Your task to perform on an android device: check battery use Image 0: 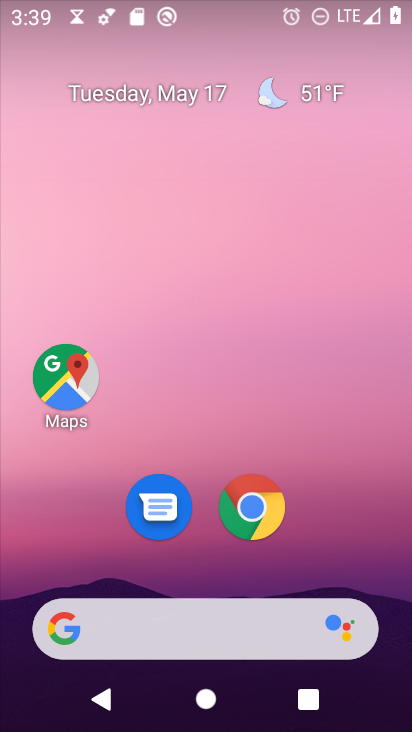
Step 0: drag from (302, 570) to (340, 103)
Your task to perform on an android device: check battery use Image 1: 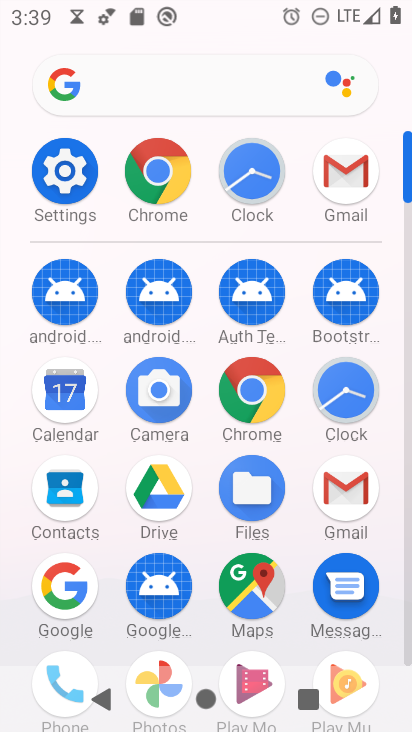
Step 1: click (54, 192)
Your task to perform on an android device: check battery use Image 2: 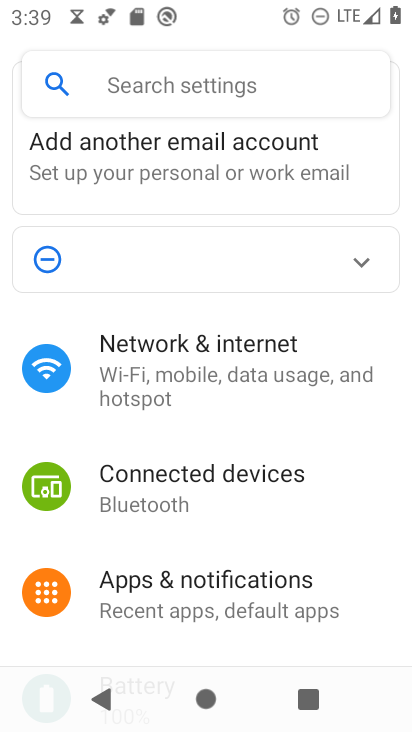
Step 2: drag from (139, 539) to (152, 374)
Your task to perform on an android device: check battery use Image 3: 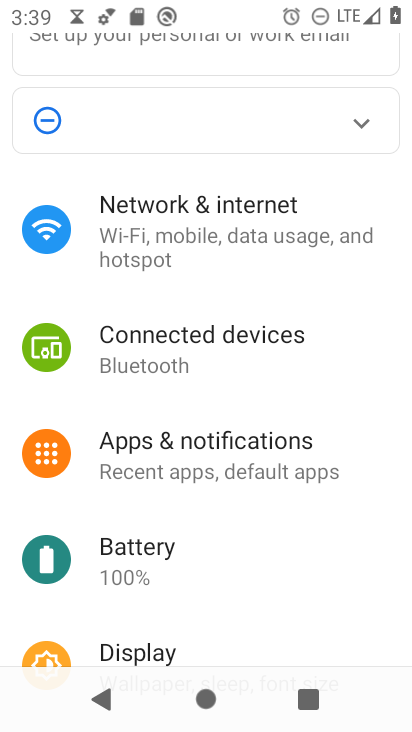
Step 3: click (159, 575)
Your task to perform on an android device: check battery use Image 4: 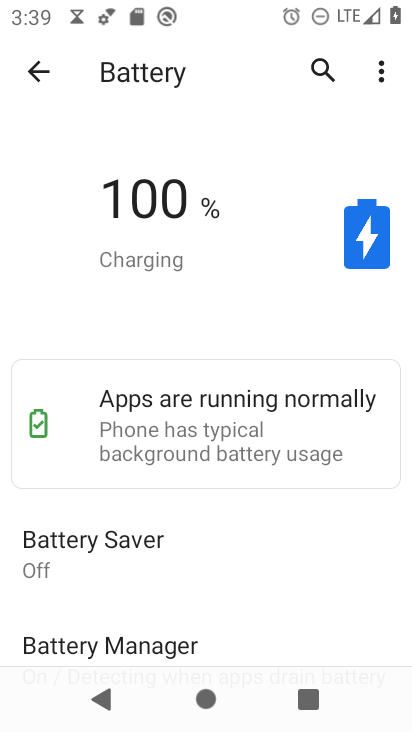
Step 4: task complete